Your task to perform on an android device: Is it going to rain today? Image 0: 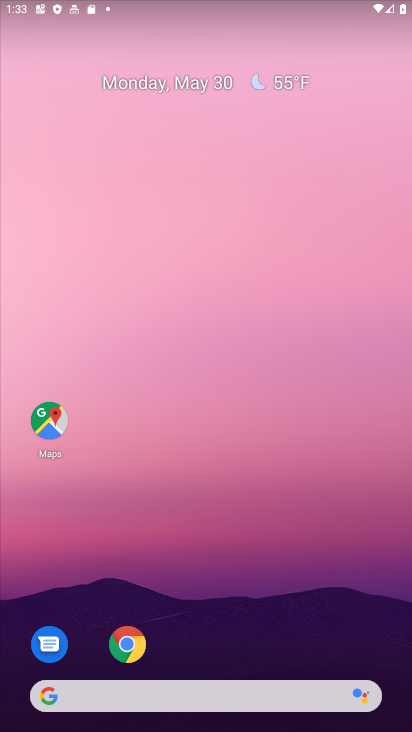
Step 0: drag from (244, 662) to (215, 121)
Your task to perform on an android device: Is it going to rain today? Image 1: 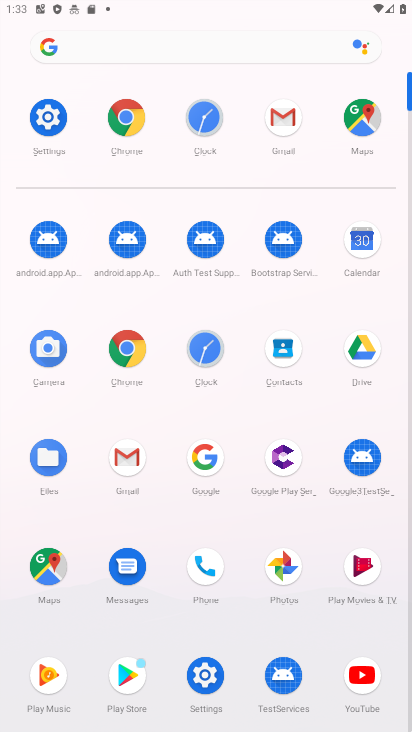
Step 1: click (156, 41)
Your task to perform on an android device: Is it going to rain today? Image 2: 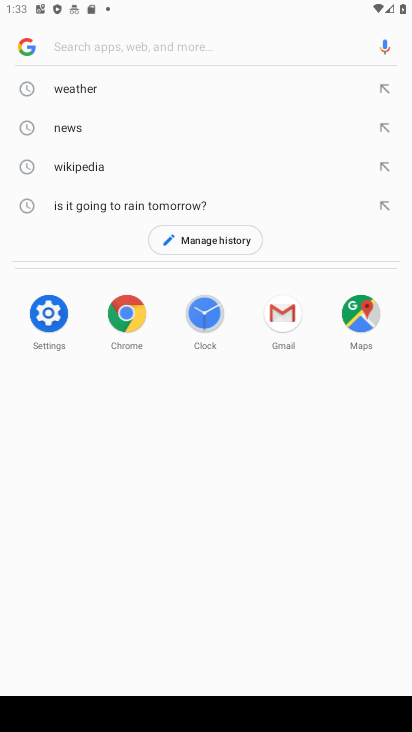
Step 2: click (172, 94)
Your task to perform on an android device: Is it going to rain today? Image 3: 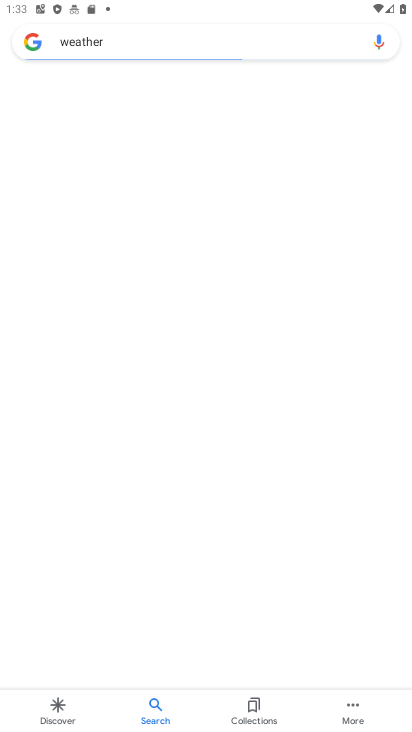
Step 3: task complete